Your task to perform on an android device: delete the emails in spam in the gmail app Image 0: 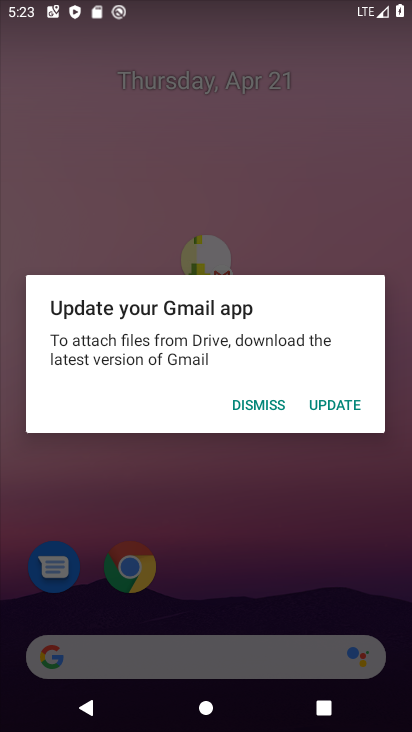
Step 0: click (263, 406)
Your task to perform on an android device: delete the emails in spam in the gmail app Image 1: 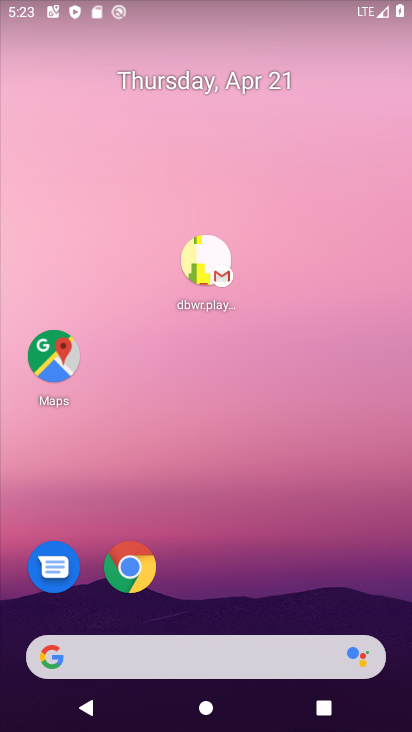
Step 1: drag from (237, 592) to (360, 29)
Your task to perform on an android device: delete the emails in spam in the gmail app Image 2: 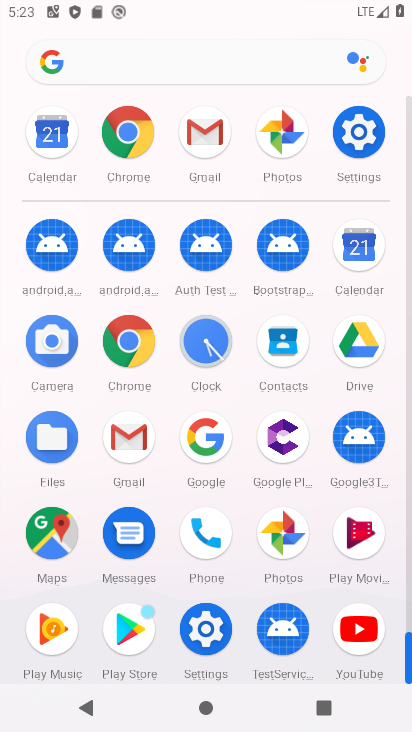
Step 2: click (142, 440)
Your task to perform on an android device: delete the emails in spam in the gmail app Image 3: 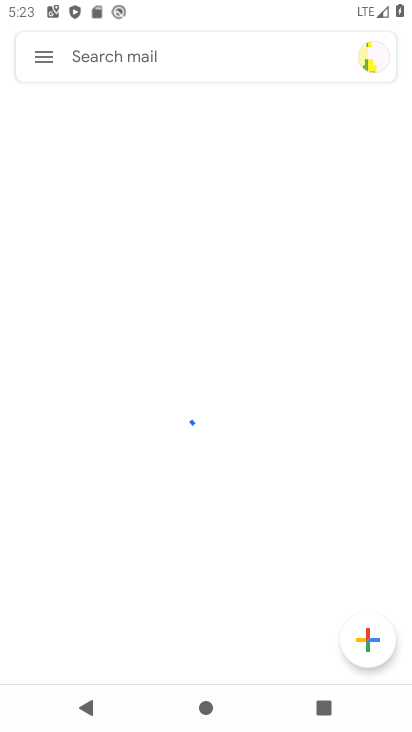
Step 3: click (38, 53)
Your task to perform on an android device: delete the emails in spam in the gmail app Image 4: 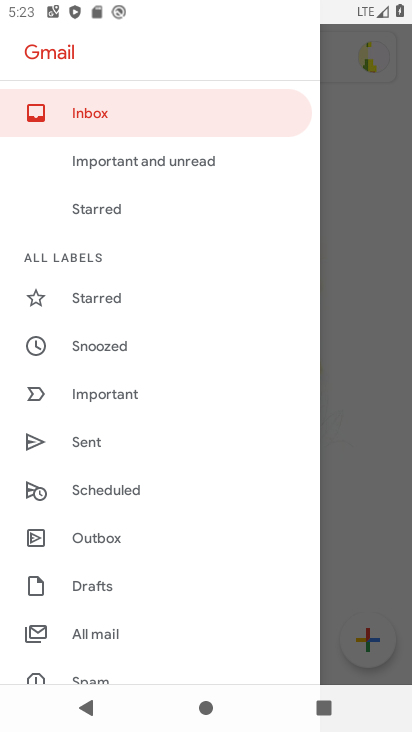
Step 4: drag from (108, 609) to (190, 377)
Your task to perform on an android device: delete the emails in spam in the gmail app Image 5: 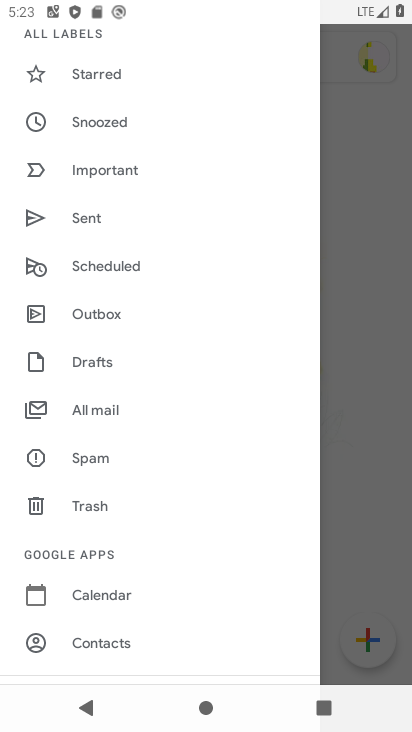
Step 5: click (72, 451)
Your task to perform on an android device: delete the emails in spam in the gmail app Image 6: 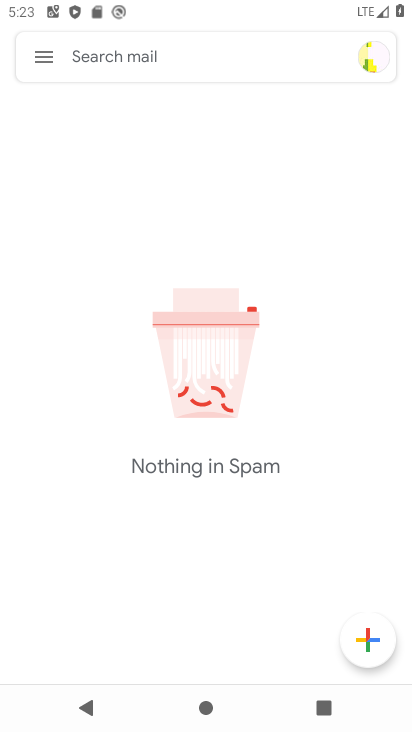
Step 6: task complete